Your task to perform on an android device: Open Google Maps and go to "Timeline" Image 0: 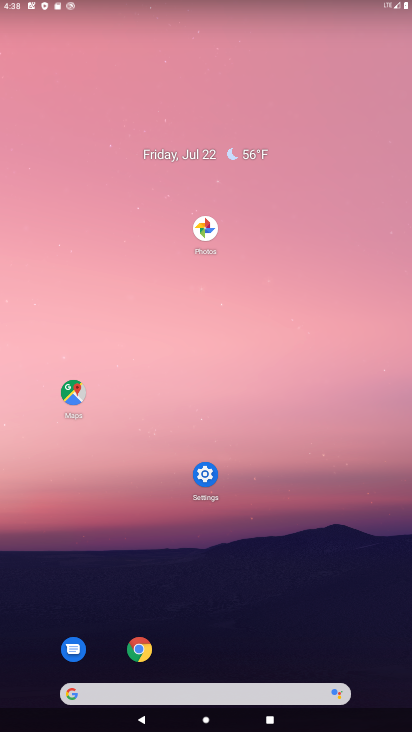
Step 0: drag from (78, 15) to (339, 12)
Your task to perform on an android device: Open Google Maps and go to "Timeline" Image 1: 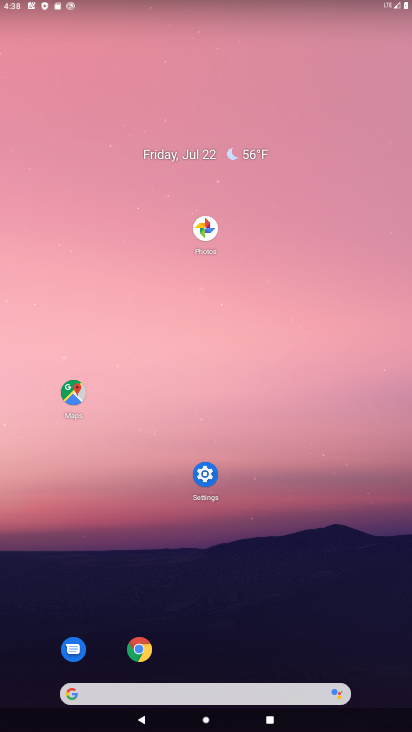
Step 1: drag from (330, 620) to (188, 77)
Your task to perform on an android device: Open Google Maps and go to "Timeline" Image 2: 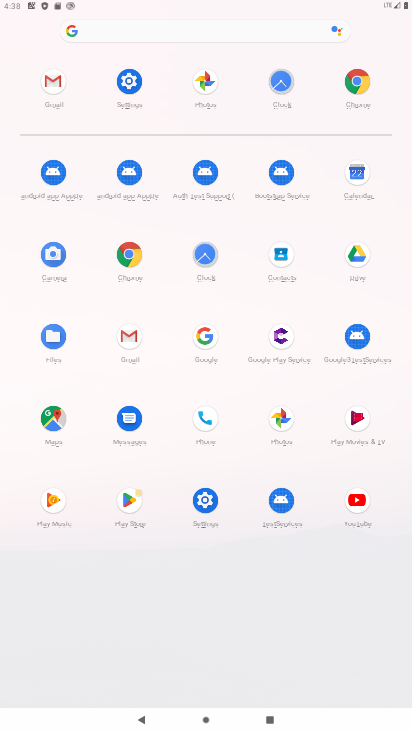
Step 2: click (52, 423)
Your task to perform on an android device: Open Google Maps and go to "Timeline" Image 3: 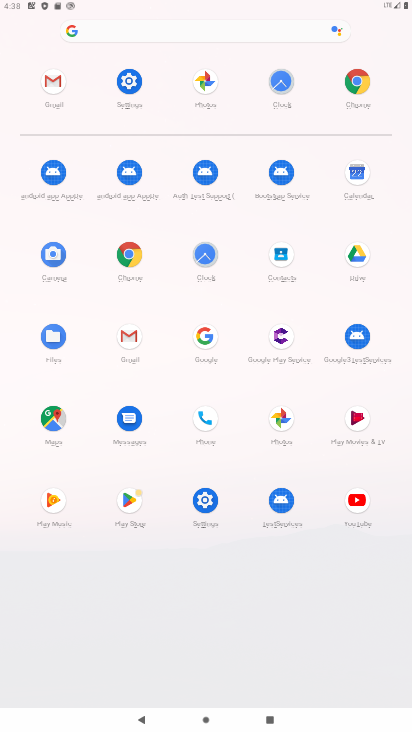
Step 3: click (53, 421)
Your task to perform on an android device: Open Google Maps and go to "Timeline" Image 4: 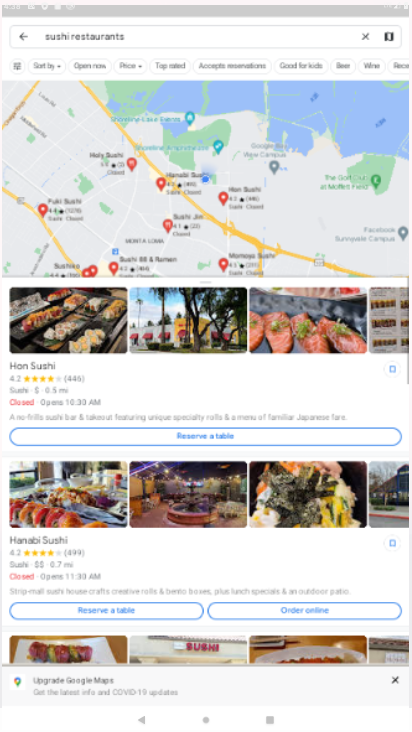
Step 4: click (56, 418)
Your task to perform on an android device: Open Google Maps and go to "Timeline" Image 5: 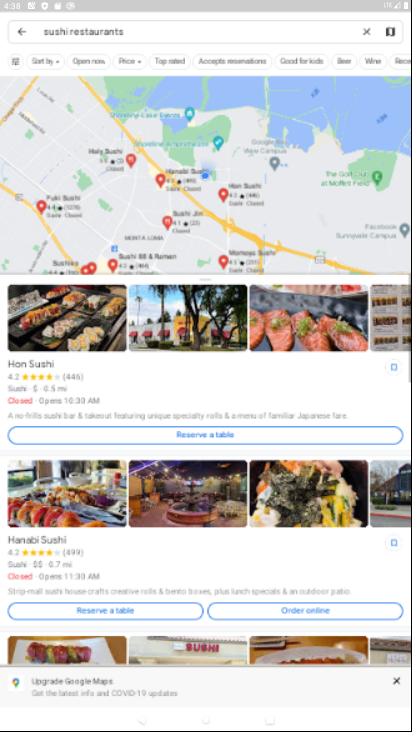
Step 5: click (55, 416)
Your task to perform on an android device: Open Google Maps and go to "Timeline" Image 6: 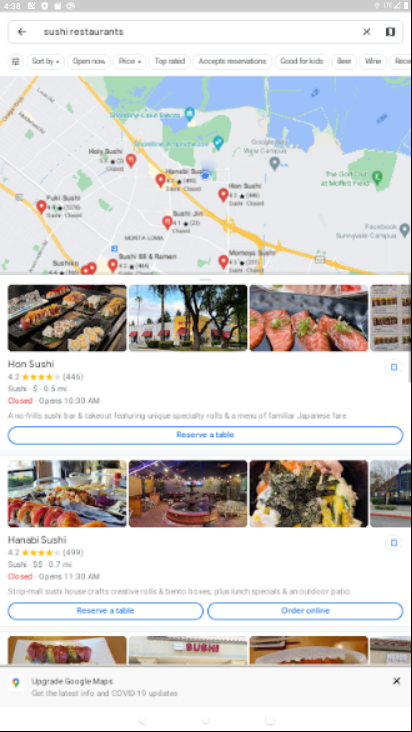
Step 6: click (20, 39)
Your task to perform on an android device: Open Google Maps and go to "Timeline" Image 7: 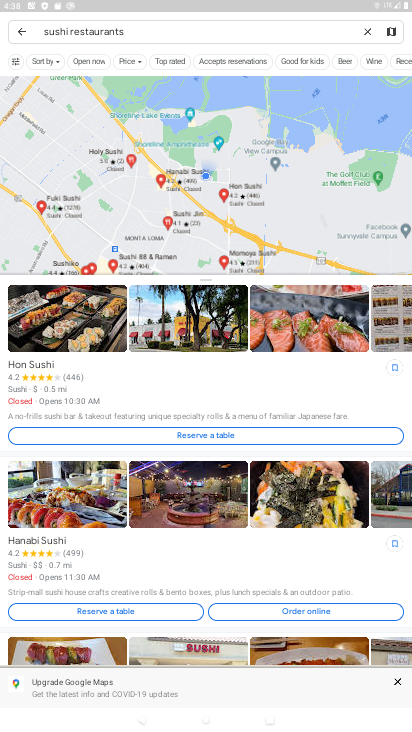
Step 7: click (22, 32)
Your task to perform on an android device: Open Google Maps and go to "Timeline" Image 8: 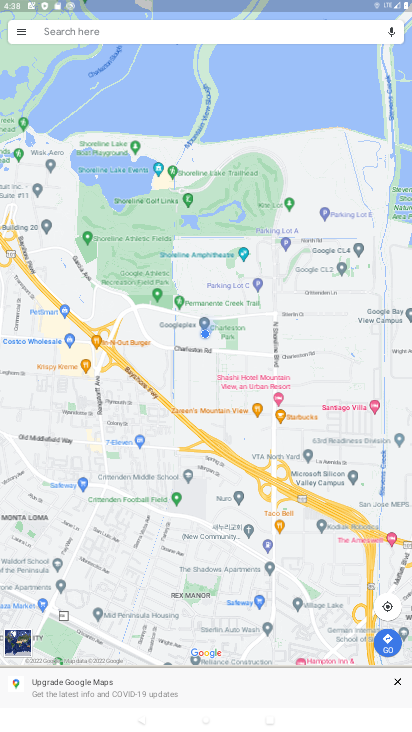
Step 8: click (23, 39)
Your task to perform on an android device: Open Google Maps and go to "Timeline" Image 9: 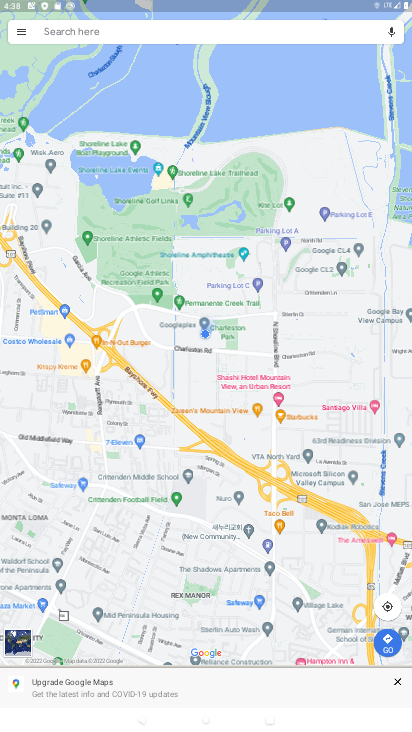
Step 9: click (23, 39)
Your task to perform on an android device: Open Google Maps and go to "Timeline" Image 10: 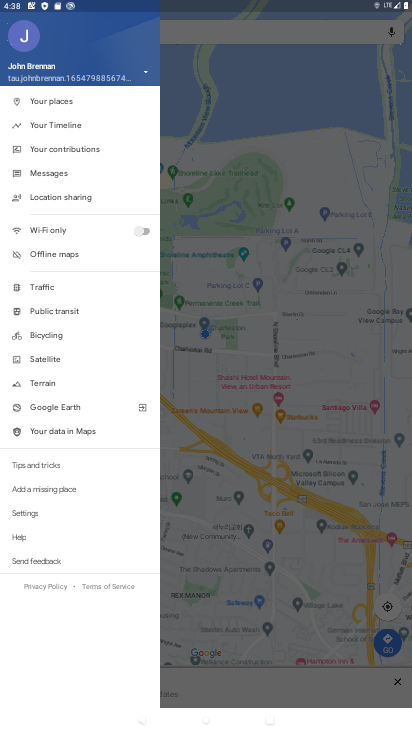
Step 10: drag from (23, 39) to (61, 122)
Your task to perform on an android device: Open Google Maps and go to "Timeline" Image 11: 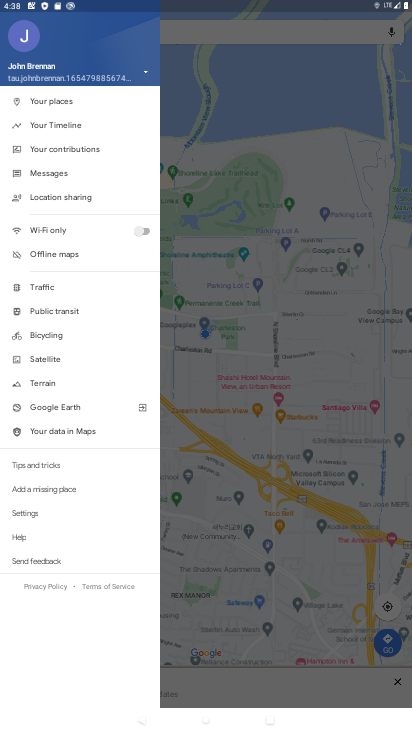
Step 11: click (61, 122)
Your task to perform on an android device: Open Google Maps and go to "Timeline" Image 12: 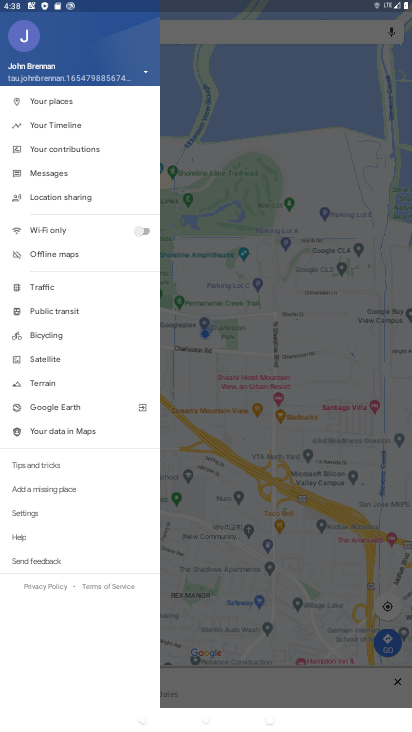
Step 12: click (61, 122)
Your task to perform on an android device: Open Google Maps and go to "Timeline" Image 13: 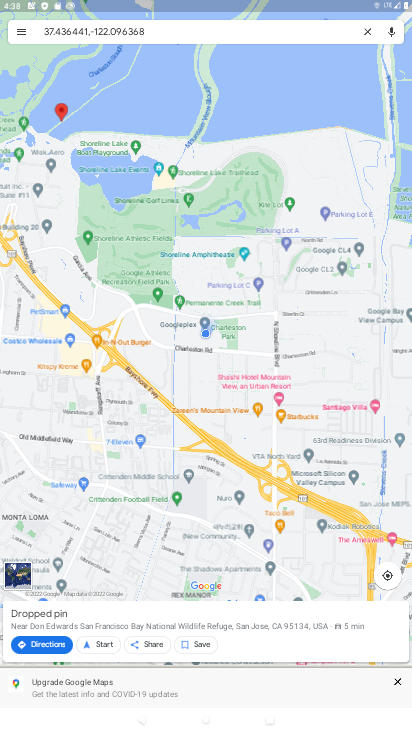
Step 13: task complete